Your task to perform on an android device: Go to notification settings Image 0: 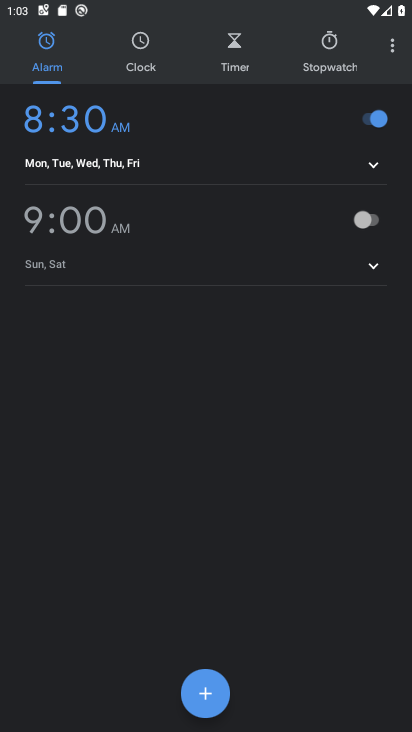
Step 0: click (403, 42)
Your task to perform on an android device: Go to notification settings Image 1: 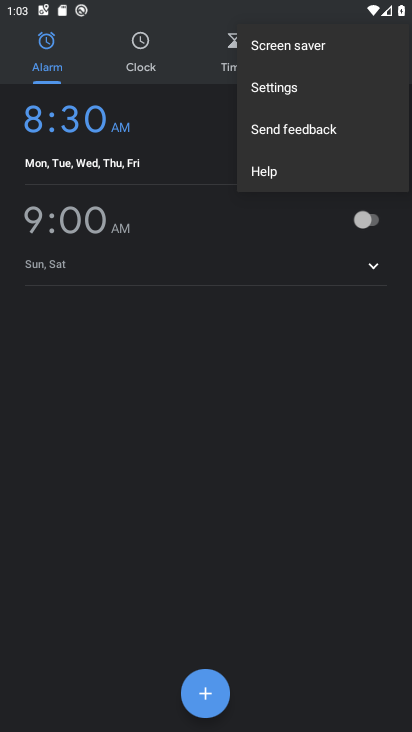
Step 1: click (324, 102)
Your task to perform on an android device: Go to notification settings Image 2: 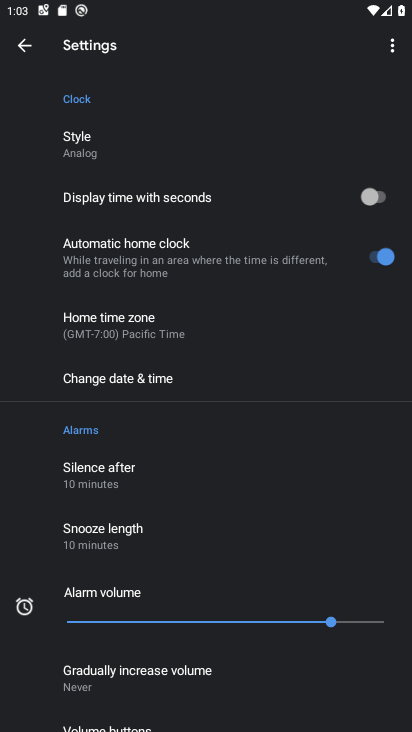
Step 2: drag from (161, 568) to (208, 374)
Your task to perform on an android device: Go to notification settings Image 3: 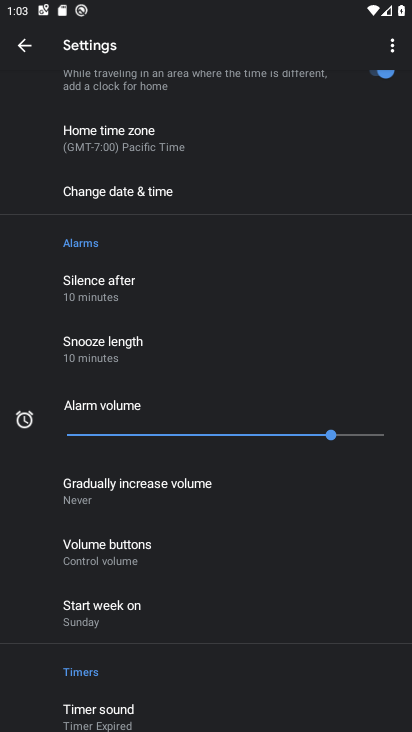
Step 3: drag from (147, 262) to (395, 706)
Your task to perform on an android device: Go to notification settings Image 4: 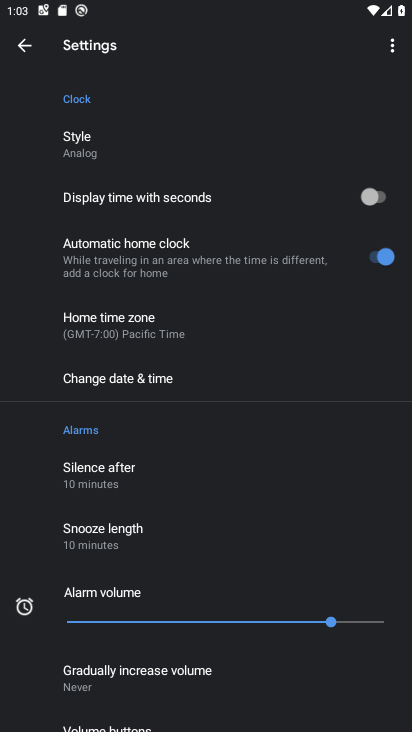
Step 4: press home button
Your task to perform on an android device: Go to notification settings Image 5: 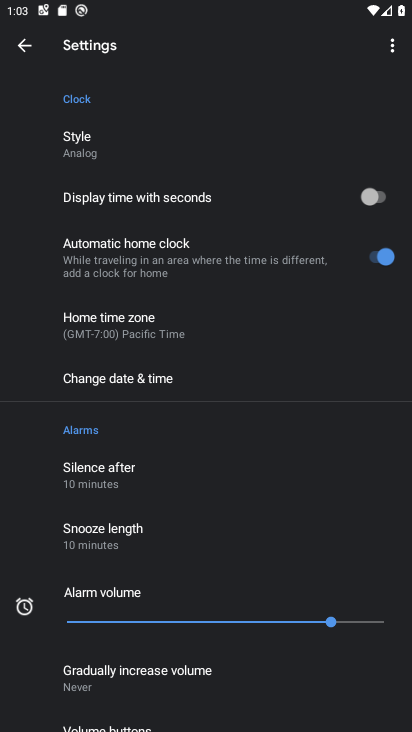
Step 5: drag from (395, 706) to (400, 325)
Your task to perform on an android device: Go to notification settings Image 6: 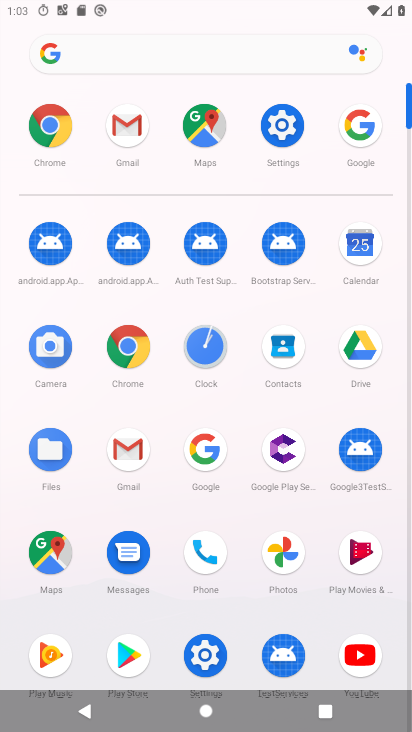
Step 6: drag from (214, 533) to (285, 1)
Your task to perform on an android device: Go to notification settings Image 7: 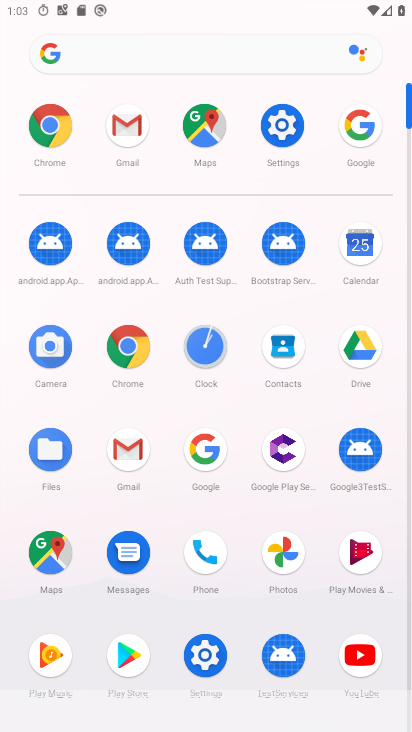
Step 7: click (281, 123)
Your task to perform on an android device: Go to notification settings Image 8: 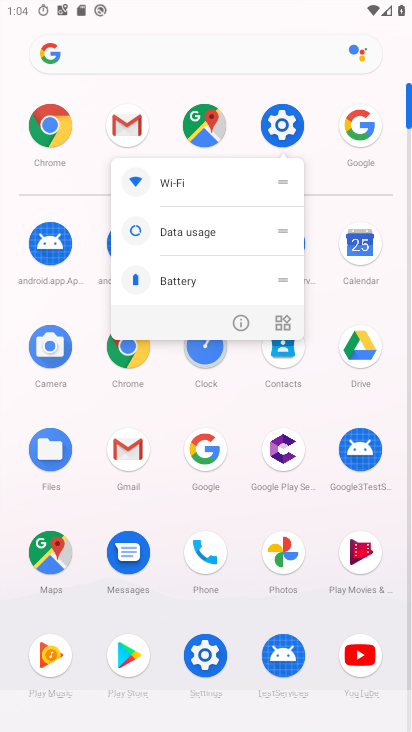
Step 8: click (232, 320)
Your task to perform on an android device: Go to notification settings Image 9: 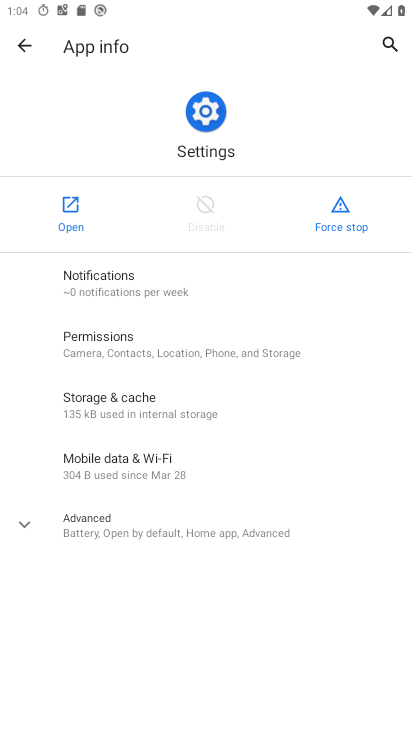
Step 9: click (67, 232)
Your task to perform on an android device: Go to notification settings Image 10: 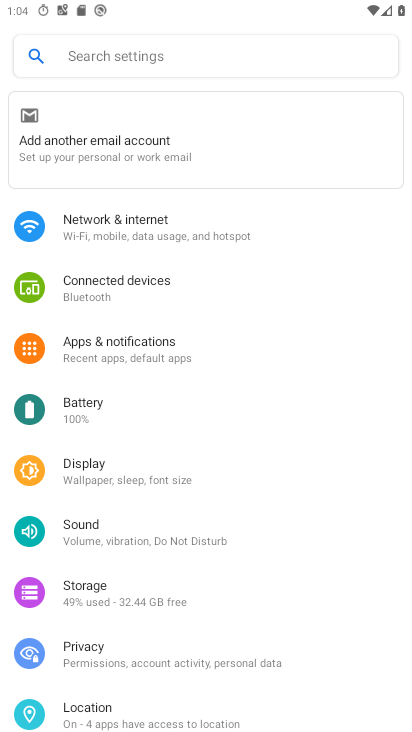
Step 10: click (157, 340)
Your task to perform on an android device: Go to notification settings Image 11: 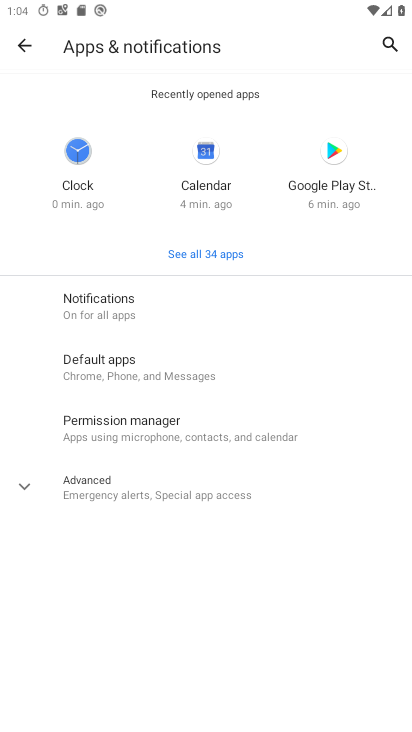
Step 11: click (138, 288)
Your task to perform on an android device: Go to notification settings Image 12: 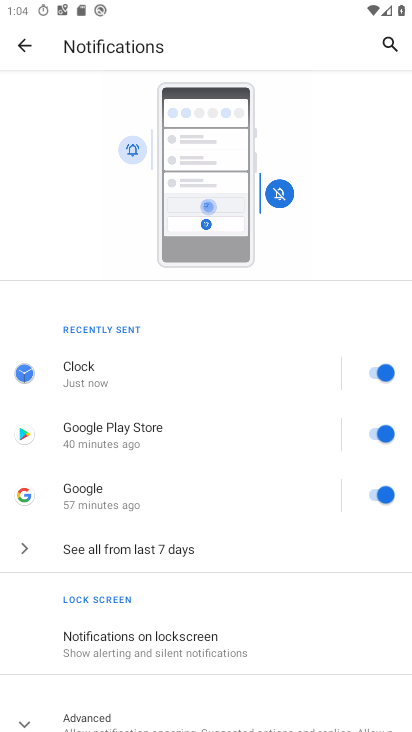
Step 12: drag from (219, 447) to (268, 62)
Your task to perform on an android device: Go to notification settings Image 13: 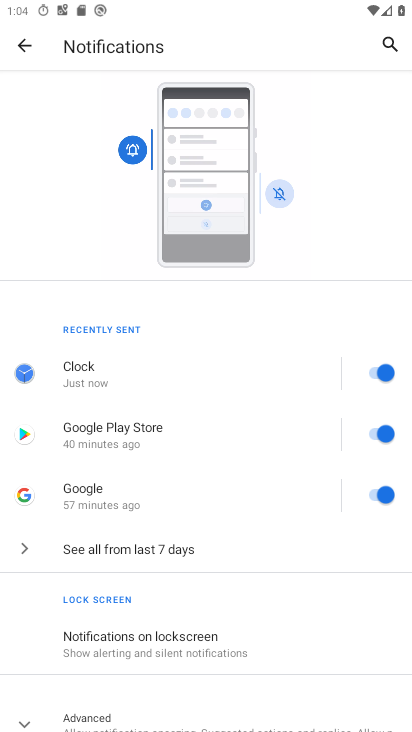
Step 13: drag from (206, 647) to (275, 171)
Your task to perform on an android device: Go to notification settings Image 14: 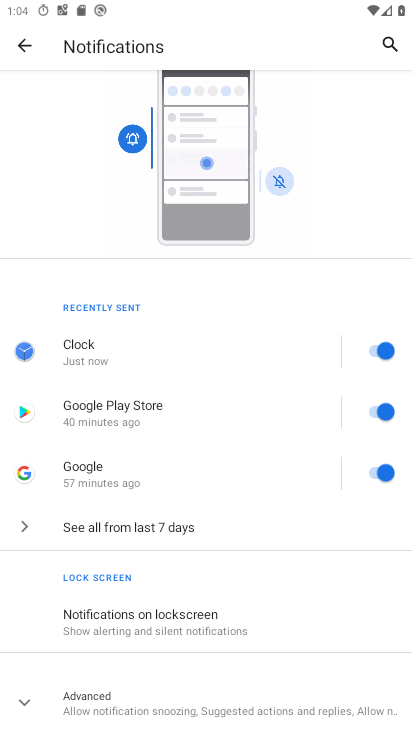
Step 14: click (379, 407)
Your task to perform on an android device: Go to notification settings Image 15: 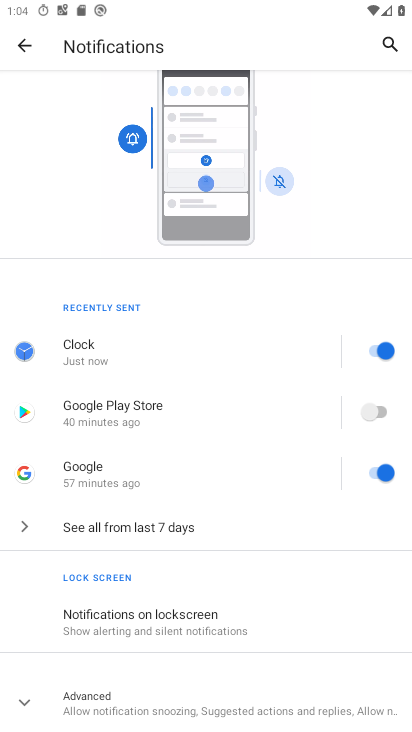
Step 15: task complete